Your task to perform on an android device: Go to sound settings Image 0: 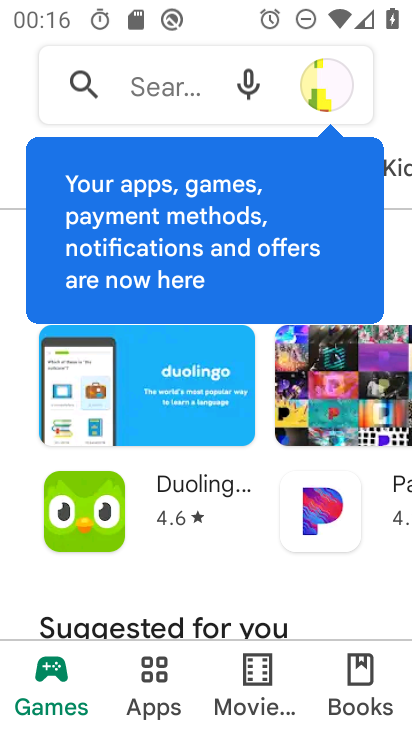
Step 0: press home button
Your task to perform on an android device: Go to sound settings Image 1: 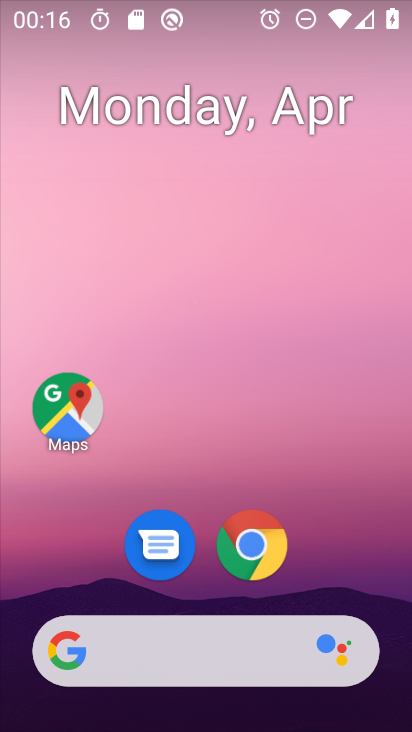
Step 1: drag from (307, 560) to (308, 280)
Your task to perform on an android device: Go to sound settings Image 2: 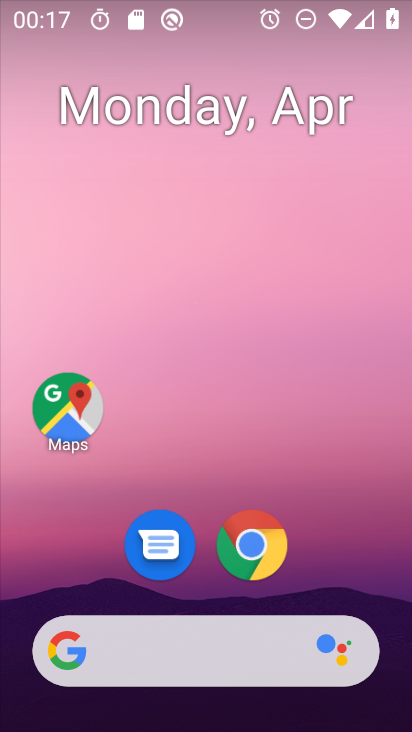
Step 2: drag from (342, 568) to (342, 216)
Your task to perform on an android device: Go to sound settings Image 3: 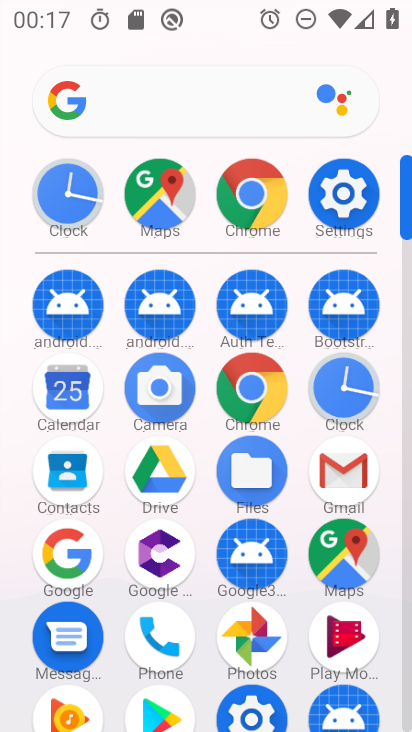
Step 3: click (342, 181)
Your task to perform on an android device: Go to sound settings Image 4: 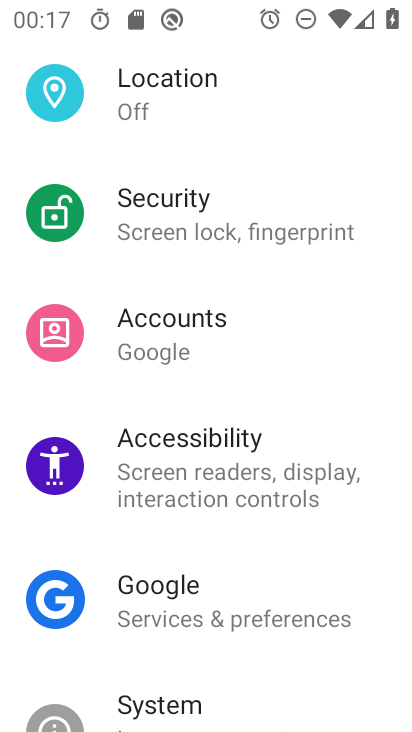
Step 4: drag from (248, 572) to (304, 155)
Your task to perform on an android device: Go to sound settings Image 5: 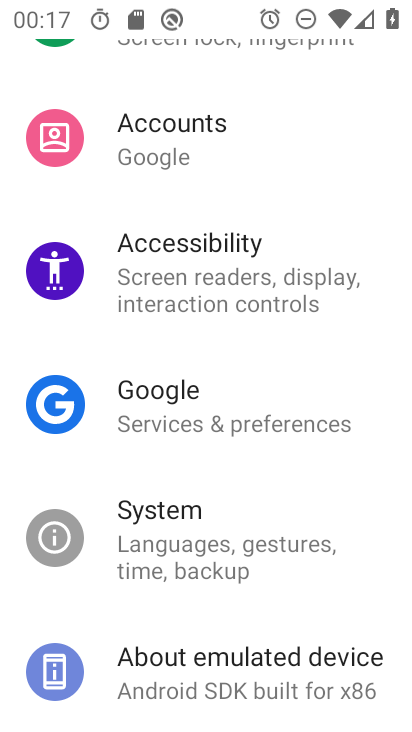
Step 5: drag from (228, 165) to (181, 632)
Your task to perform on an android device: Go to sound settings Image 6: 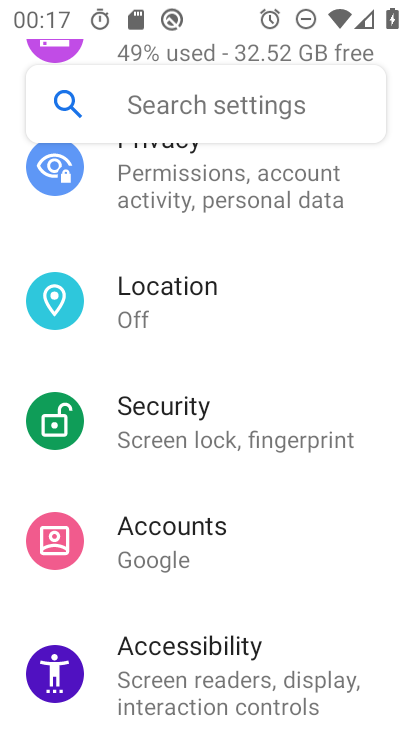
Step 6: drag from (208, 226) to (177, 618)
Your task to perform on an android device: Go to sound settings Image 7: 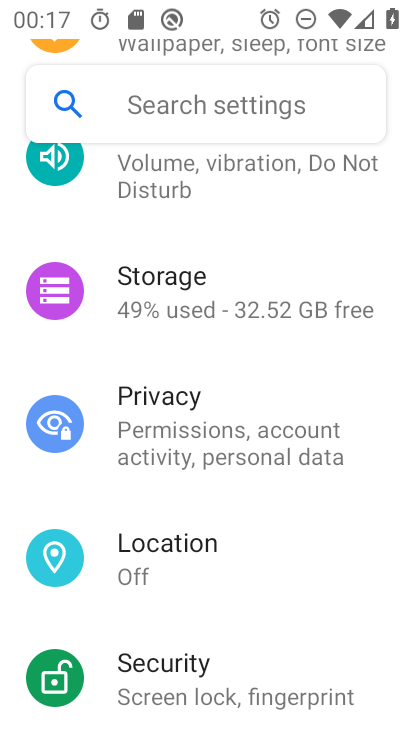
Step 7: drag from (230, 231) to (222, 630)
Your task to perform on an android device: Go to sound settings Image 8: 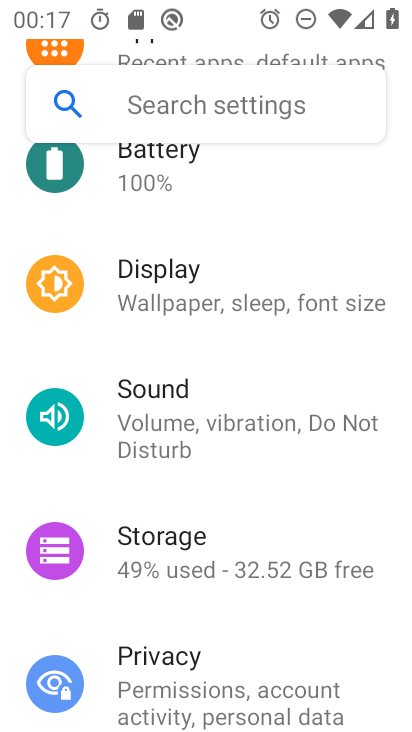
Step 8: click (207, 420)
Your task to perform on an android device: Go to sound settings Image 9: 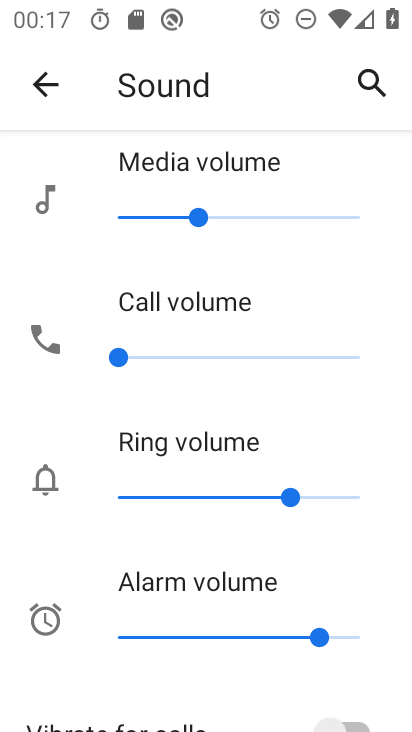
Step 9: task complete